Your task to perform on an android device: delete browsing data in the chrome app Image 0: 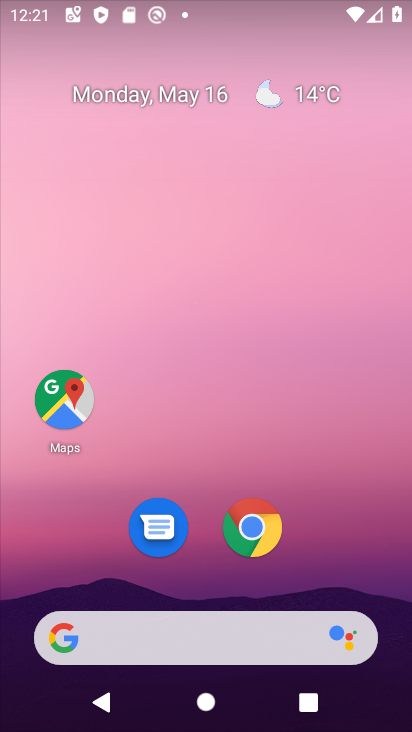
Step 0: click (255, 527)
Your task to perform on an android device: delete browsing data in the chrome app Image 1: 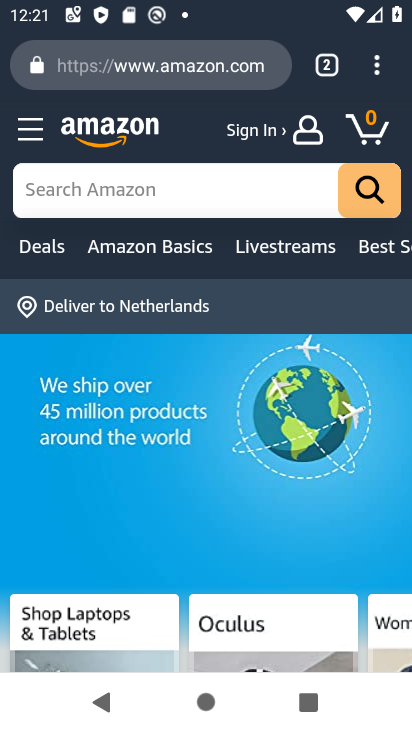
Step 1: click (379, 64)
Your task to perform on an android device: delete browsing data in the chrome app Image 2: 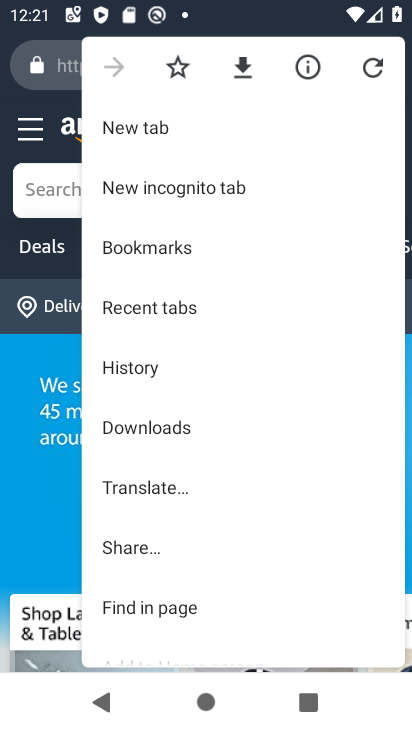
Step 2: click (147, 376)
Your task to perform on an android device: delete browsing data in the chrome app Image 3: 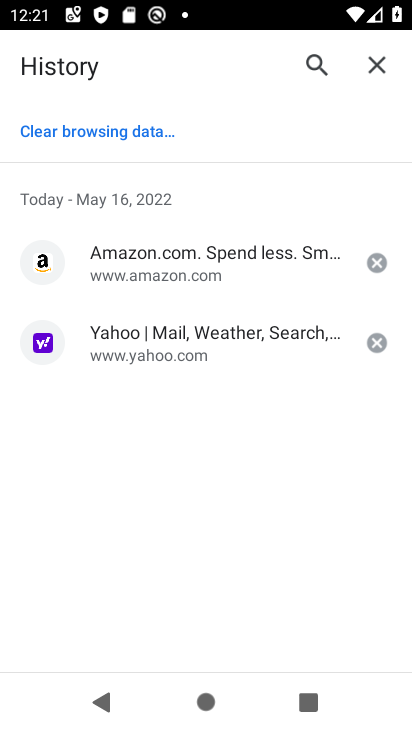
Step 3: click (125, 137)
Your task to perform on an android device: delete browsing data in the chrome app Image 4: 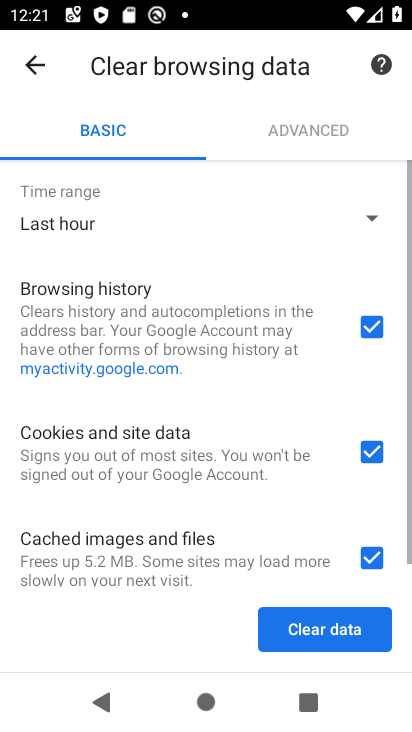
Step 4: click (338, 629)
Your task to perform on an android device: delete browsing data in the chrome app Image 5: 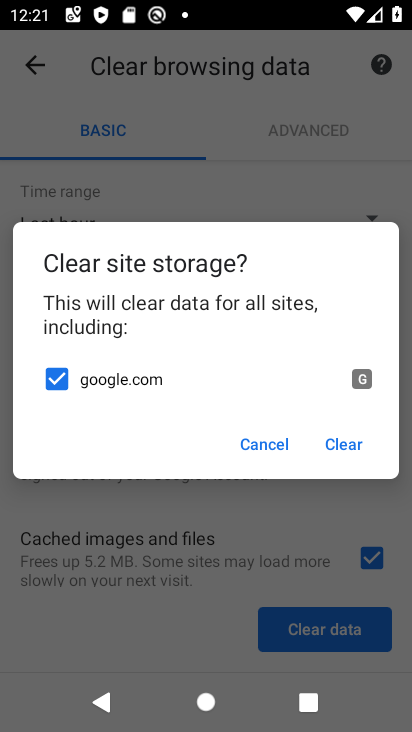
Step 5: click (338, 436)
Your task to perform on an android device: delete browsing data in the chrome app Image 6: 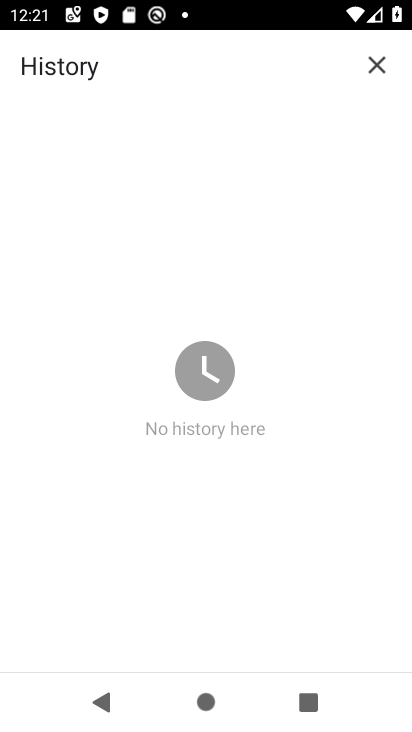
Step 6: task complete